Your task to perform on an android device: move a message to another label in the gmail app Image 0: 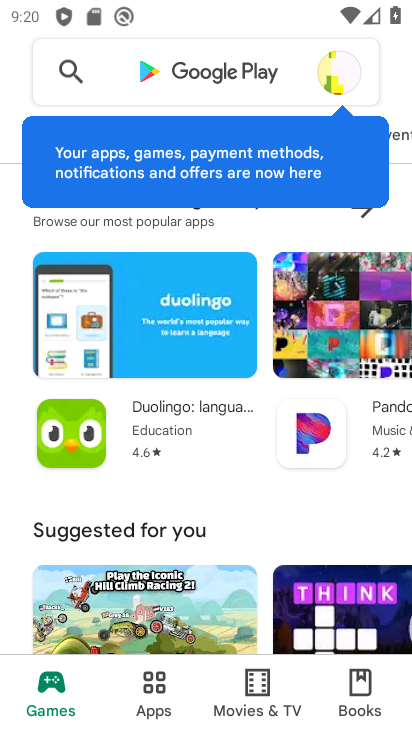
Step 0: press home button
Your task to perform on an android device: move a message to another label in the gmail app Image 1: 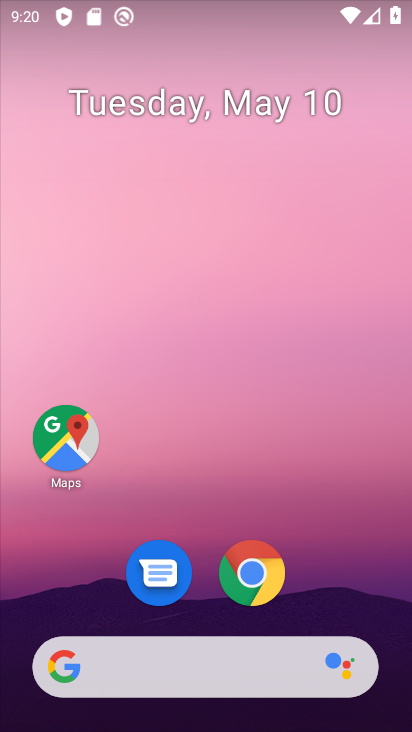
Step 1: drag from (346, 499) to (227, 7)
Your task to perform on an android device: move a message to another label in the gmail app Image 2: 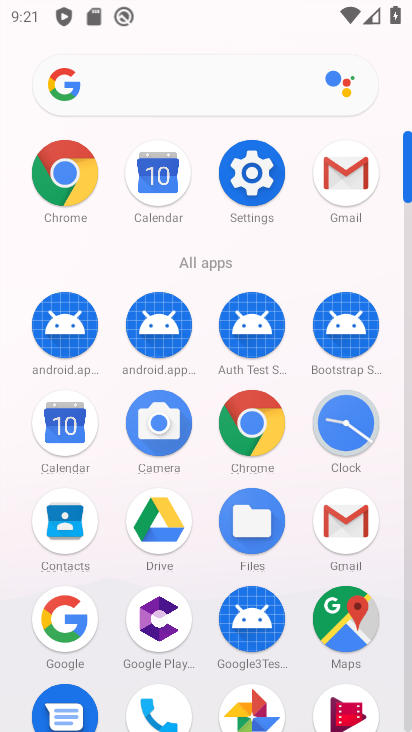
Step 2: click (345, 175)
Your task to perform on an android device: move a message to another label in the gmail app Image 3: 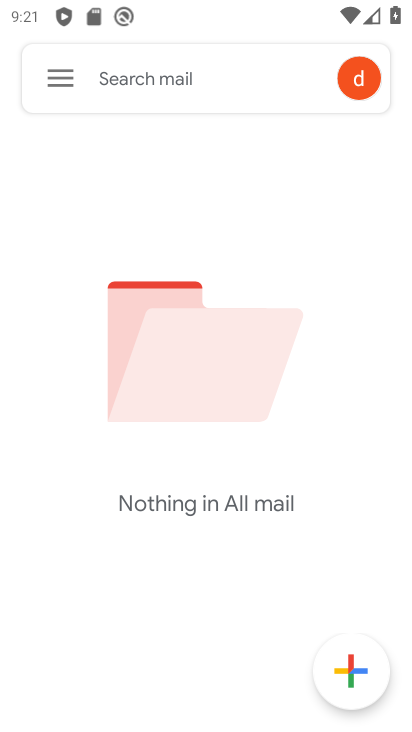
Step 3: task complete